Your task to perform on an android device: turn on translation in the chrome app Image 0: 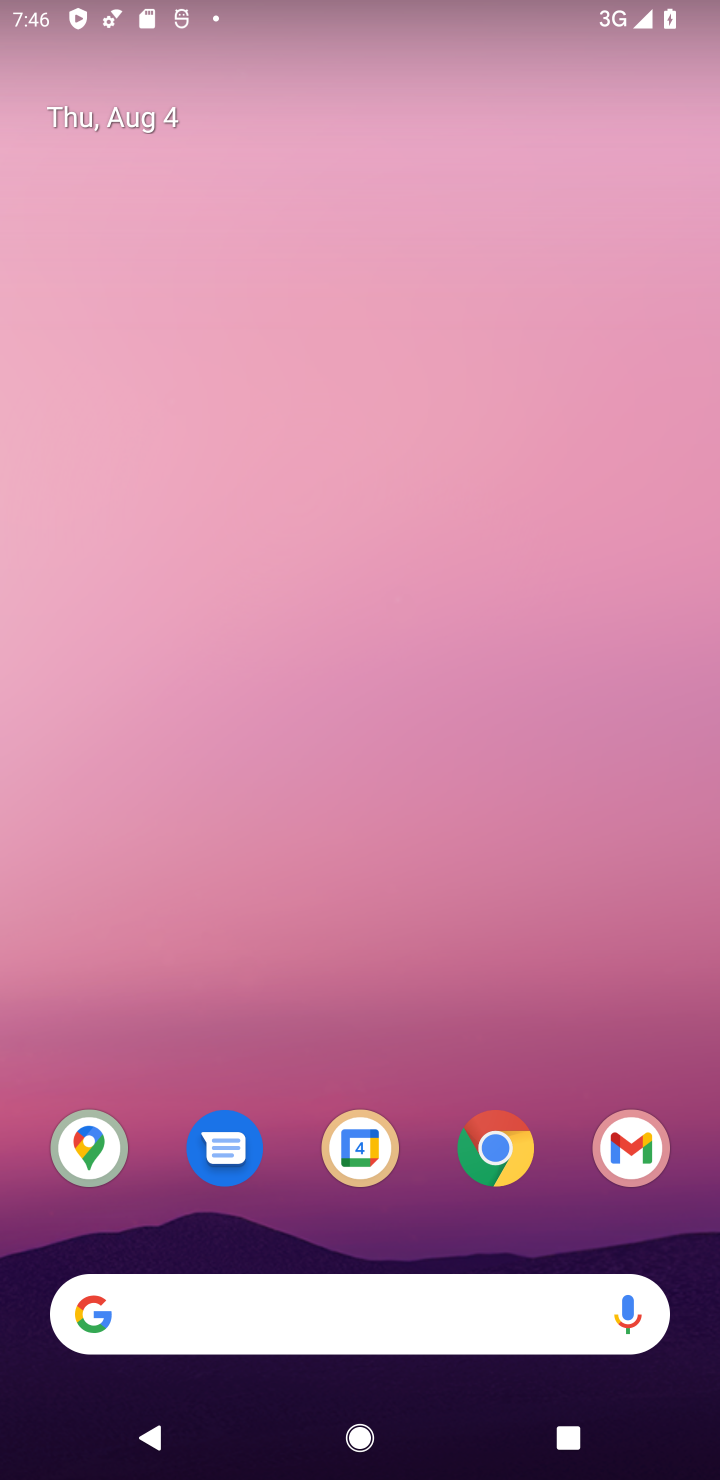
Step 0: click (507, 1160)
Your task to perform on an android device: turn on translation in the chrome app Image 1: 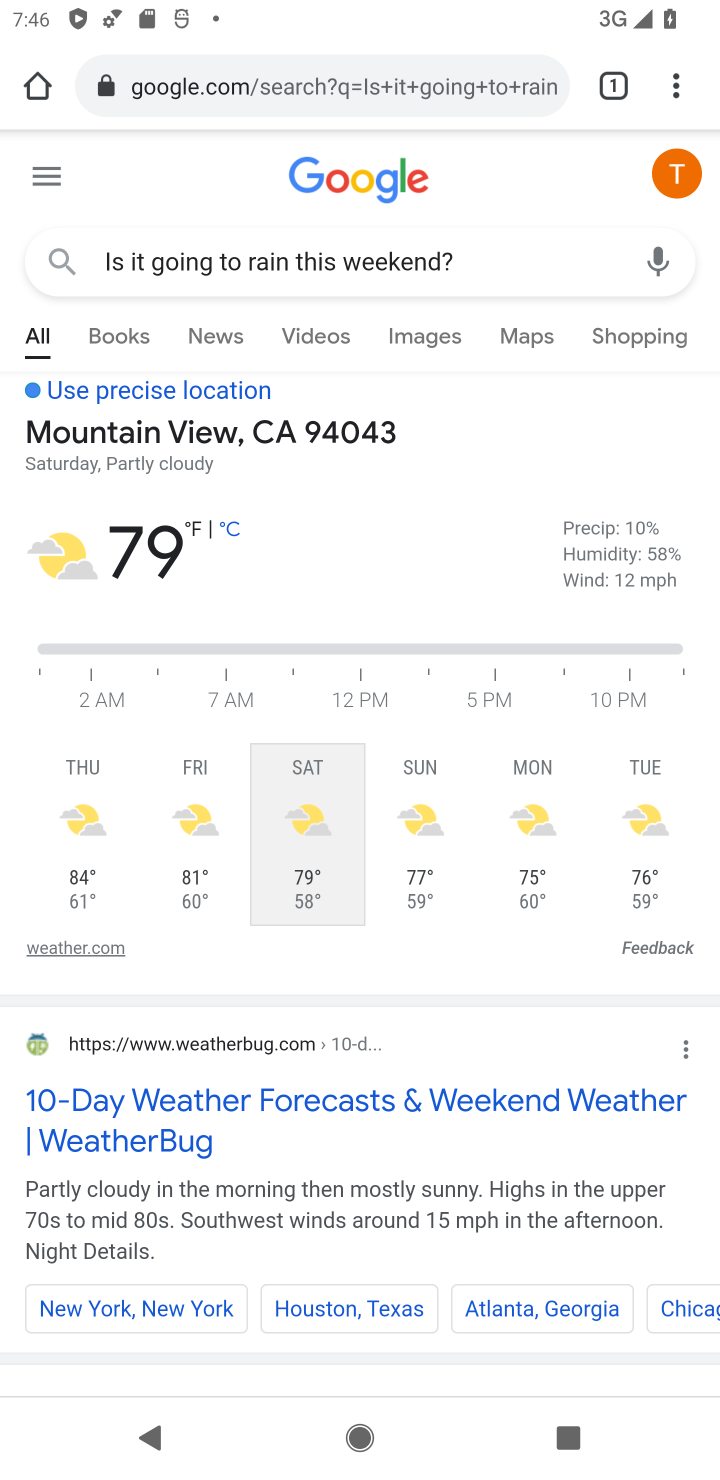
Step 1: click (668, 73)
Your task to perform on an android device: turn on translation in the chrome app Image 2: 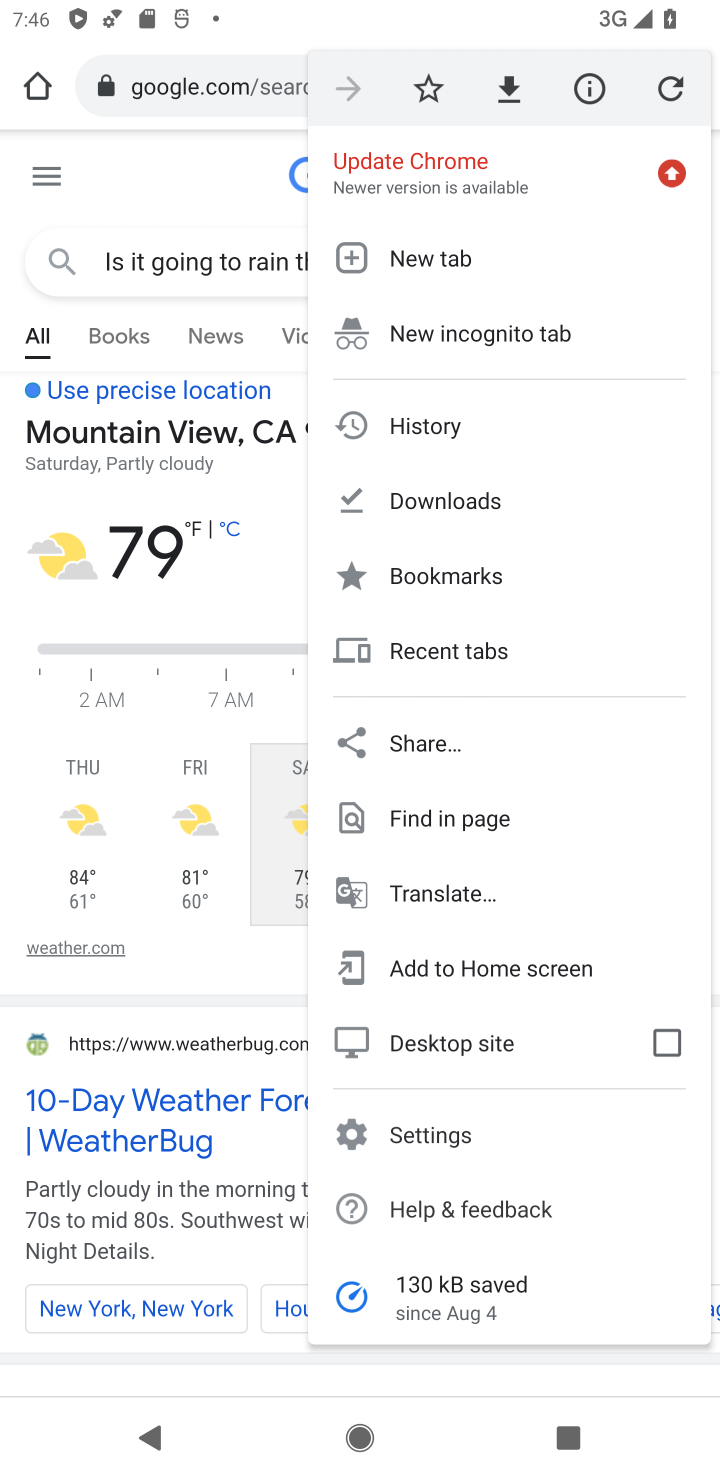
Step 2: click (668, 73)
Your task to perform on an android device: turn on translation in the chrome app Image 3: 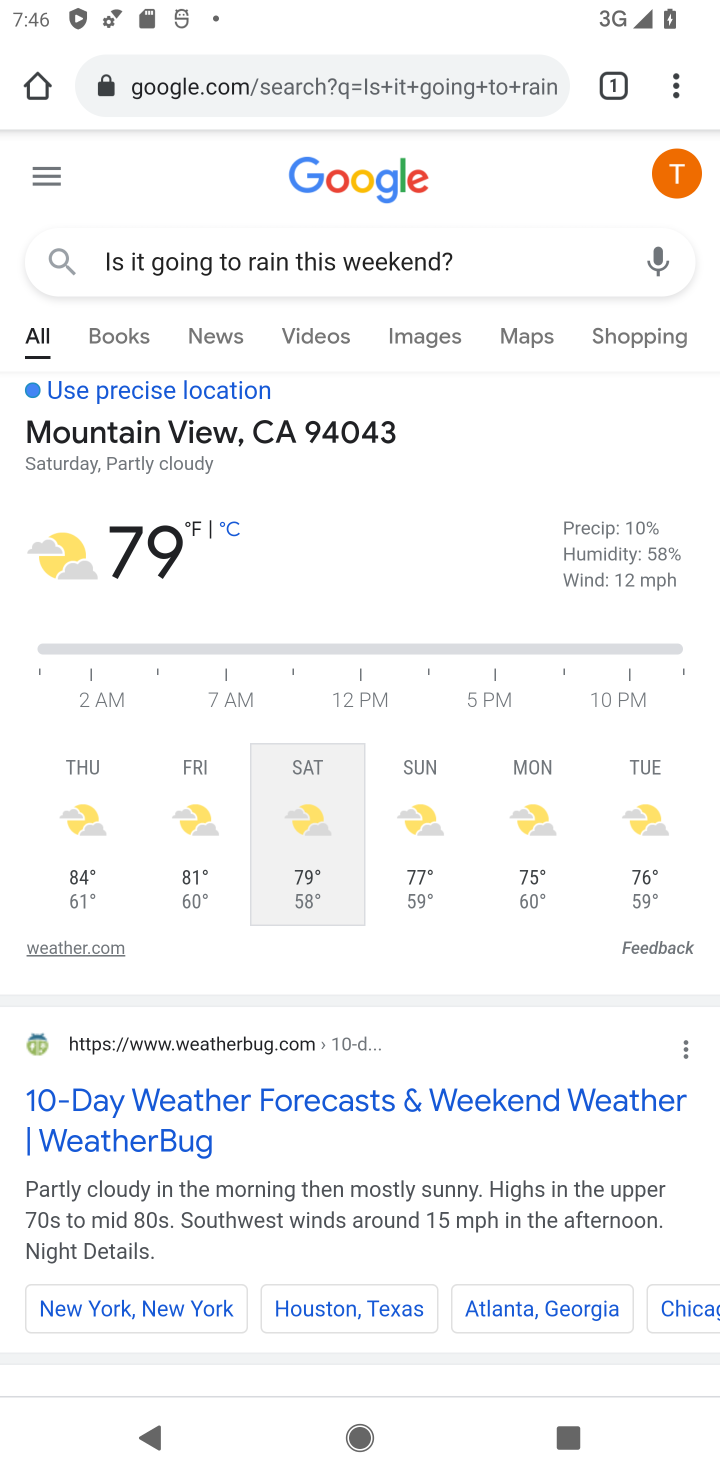
Step 3: click (668, 74)
Your task to perform on an android device: turn on translation in the chrome app Image 4: 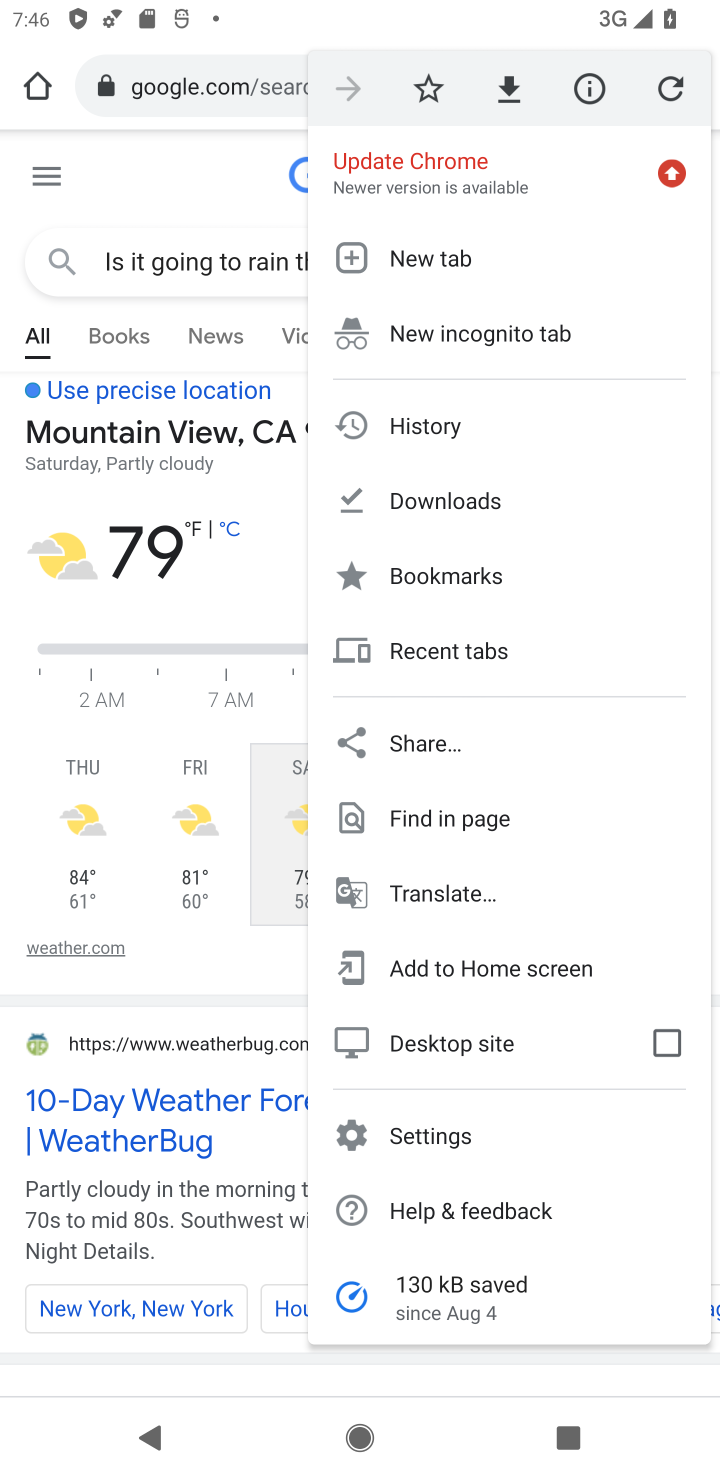
Step 4: click (444, 1150)
Your task to perform on an android device: turn on translation in the chrome app Image 5: 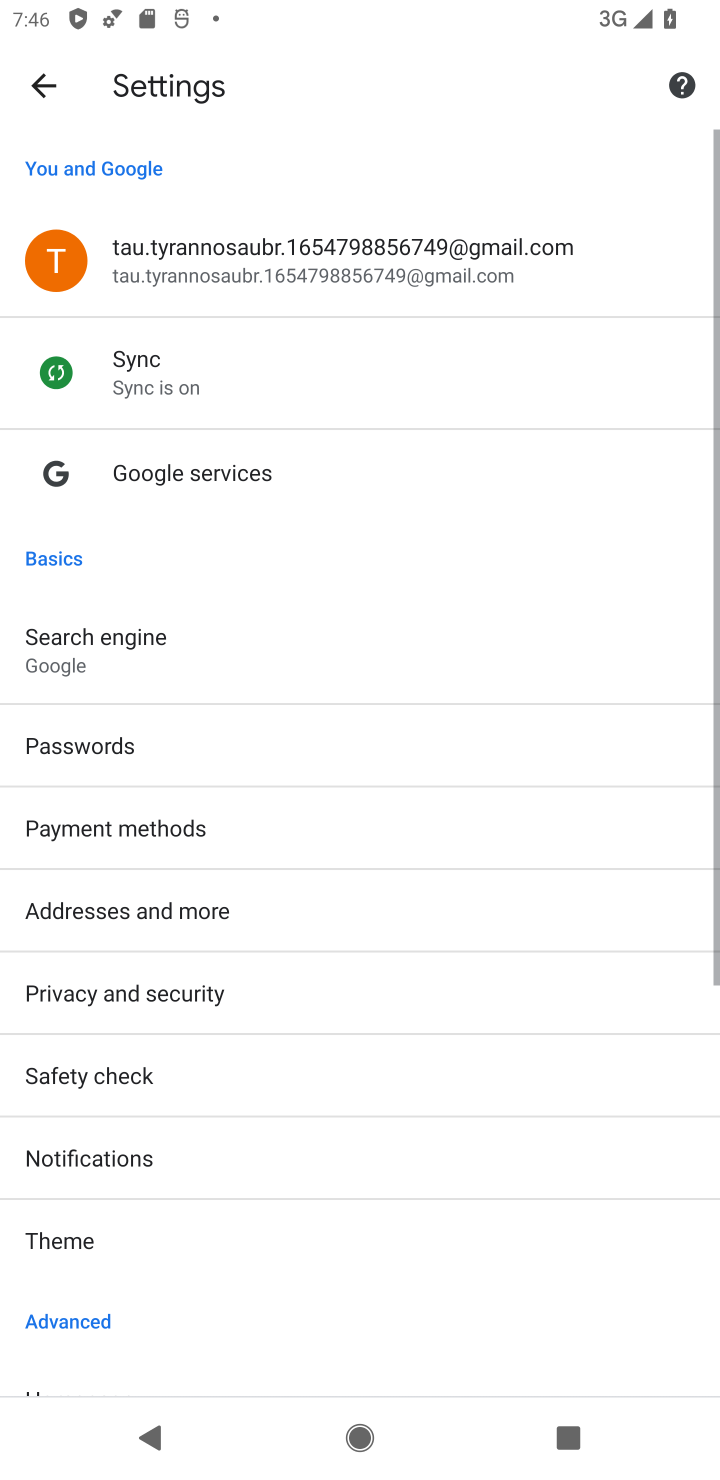
Step 5: drag from (244, 1342) to (310, 295)
Your task to perform on an android device: turn on translation in the chrome app Image 6: 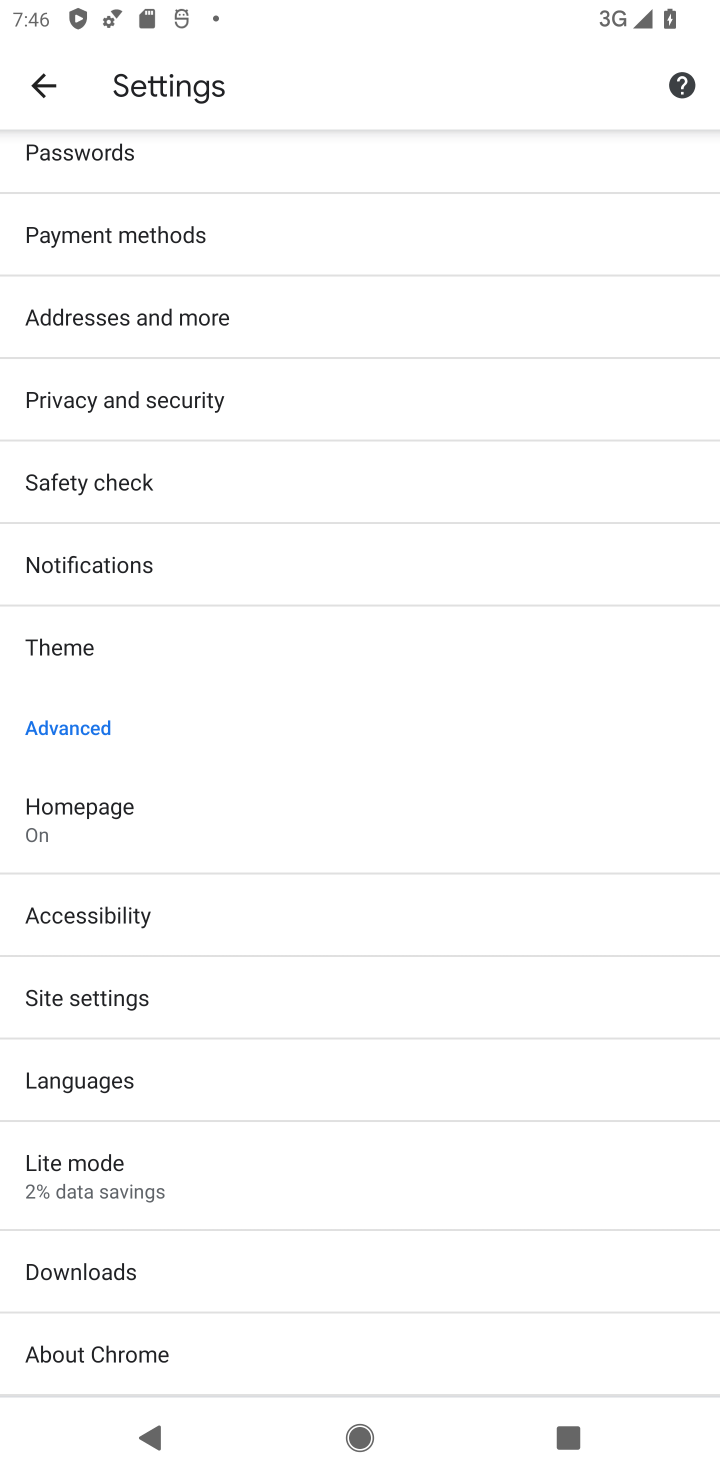
Step 6: click (313, 1092)
Your task to perform on an android device: turn on translation in the chrome app Image 7: 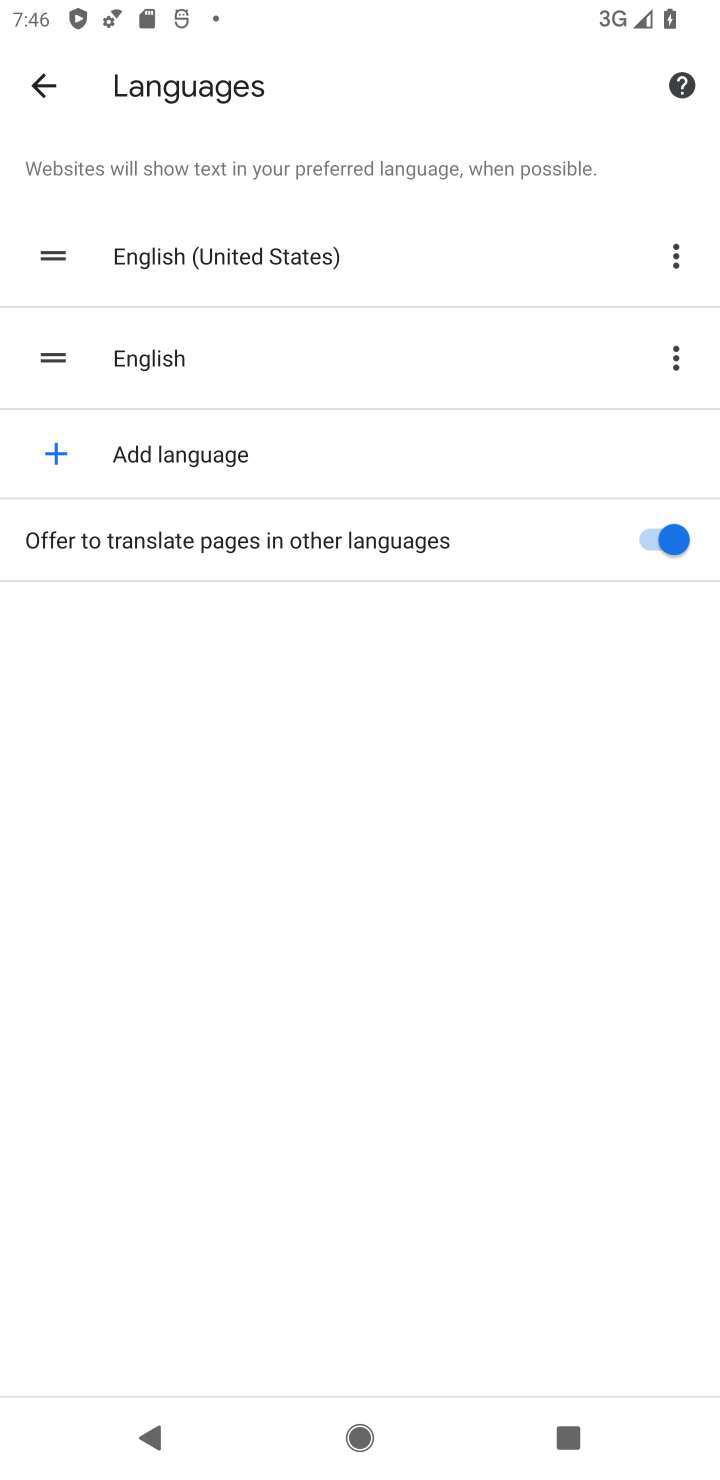
Step 7: task complete